Your task to perform on an android device: uninstall "Google Translate" Image 0: 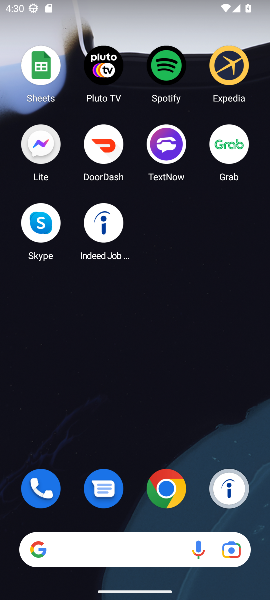
Step 0: drag from (151, 514) to (120, 10)
Your task to perform on an android device: uninstall "Google Translate" Image 1: 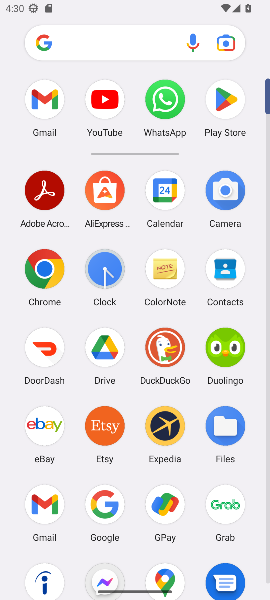
Step 1: click (231, 104)
Your task to perform on an android device: uninstall "Google Translate" Image 2: 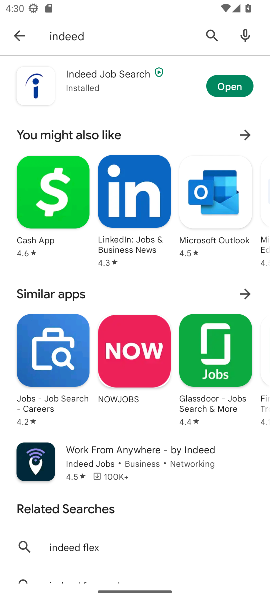
Step 2: click (156, 34)
Your task to perform on an android device: uninstall "Google Translate" Image 3: 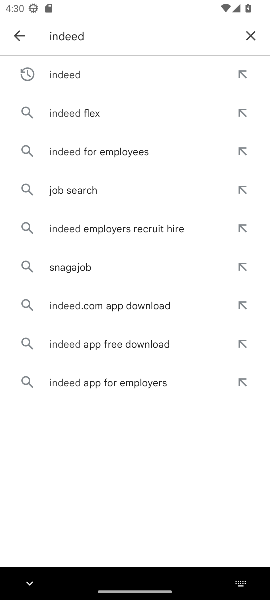
Step 3: click (240, 40)
Your task to perform on an android device: uninstall "Google Translate" Image 4: 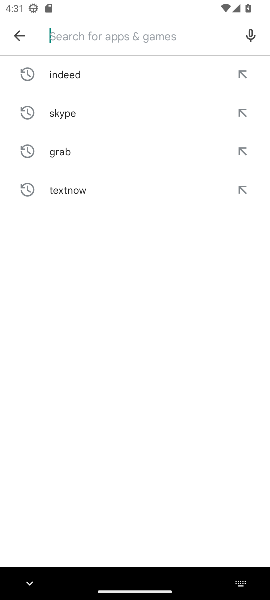
Step 4: type "google translate"
Your task to perform on an android device: uninstall "Google Translate" Image 5: 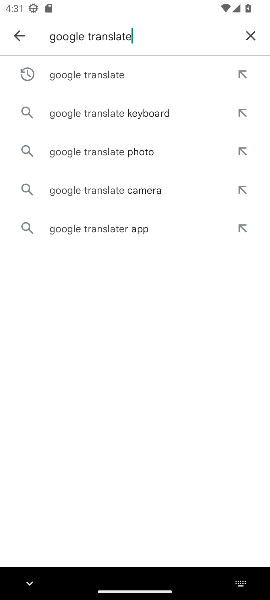
Step 5: click (87, 68)
Your task to perform on an android device: uninstall "Google Translate" Image 6: 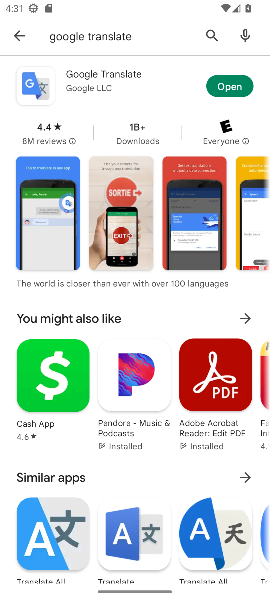
Step 6: click (226, 82)
Your task to perform on an android device: uninstall "Google Translate" Image 7: 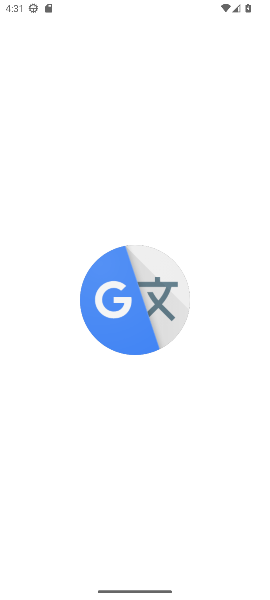
Step 7: task complete